Your task to perform on an android device: Go to settings Image 0: 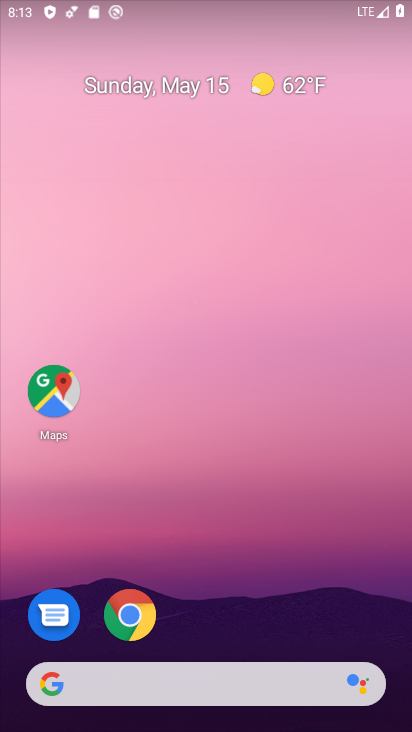
Step 0: drag from (197, 556) to (323, 80)
Your task to perform on an android device: Go to settings Image 1: 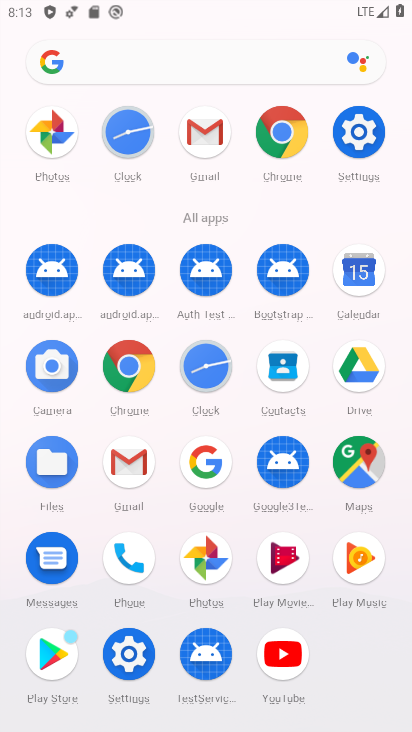
Step 1: click (360, 112)
Your task to perform on an android device: Go to settings Image 2: 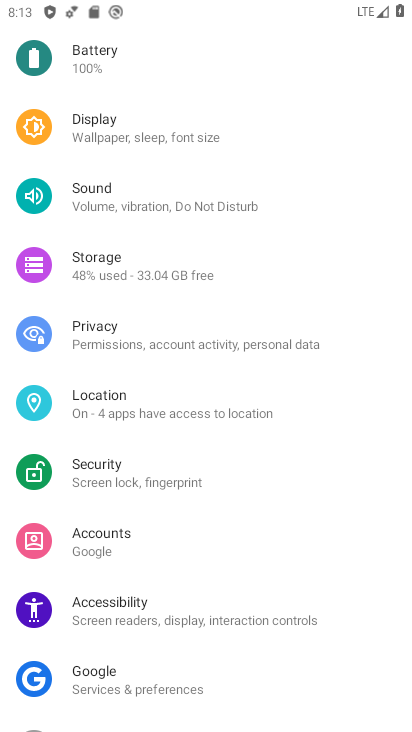
Step 2: task complete